Your task to perform on an android device: read, delete, or share a saved page in the chrome app Image 0: 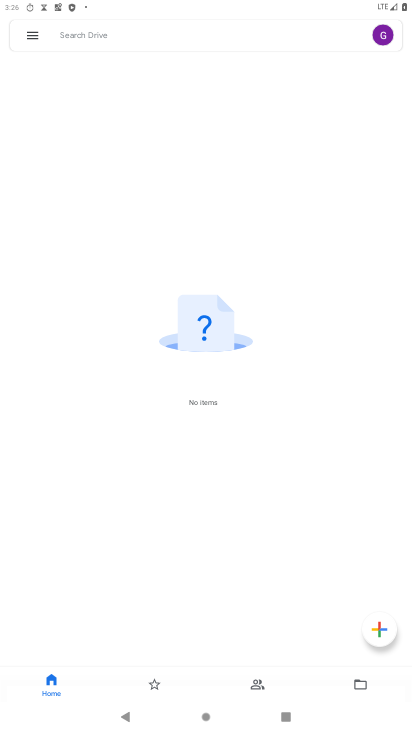
Step 0: press home button
Your task to perform on an android device: read, delete, or share a saved page in the chrome app Image 1: 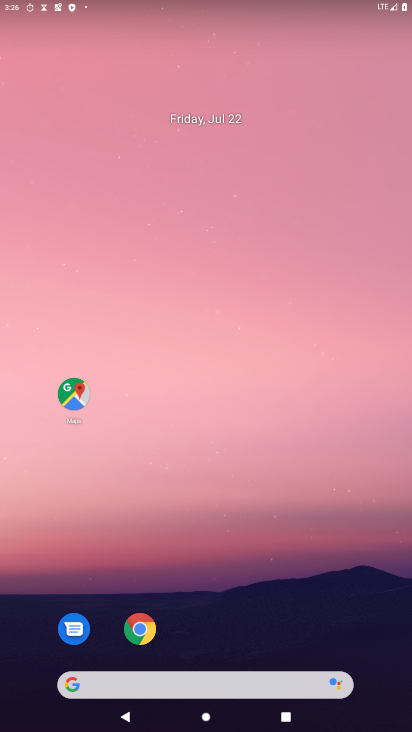
Step 1: drag from (203, 569) to (230, 3)
Your task to perform on an android device: read, delete, or share a saved page in the chrome app Image 2: 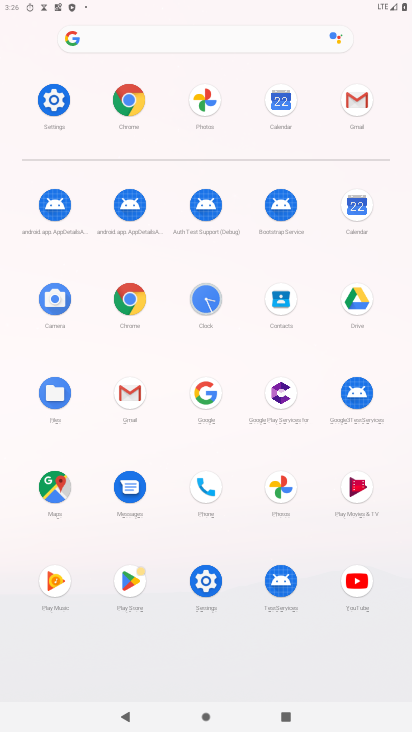
Step 2: click (139, 313)
Your task to perform on an android device: read, delete, or share a saved page in the chrome app Image 3: 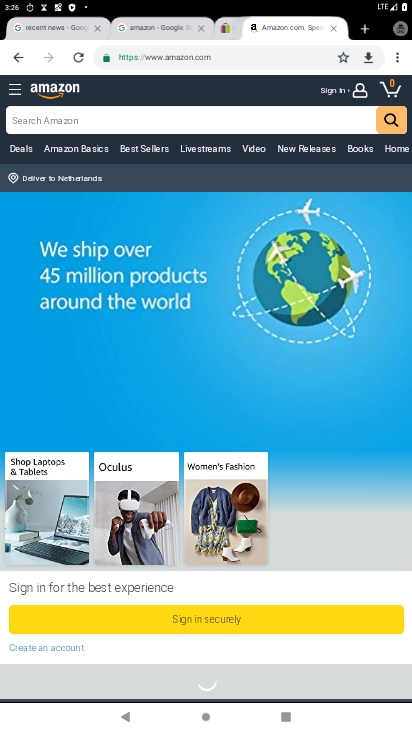
Step 3: click (402, 57)
Your task to perform on an android device: read, delete, or share a saved page in the chrome app Image 4: 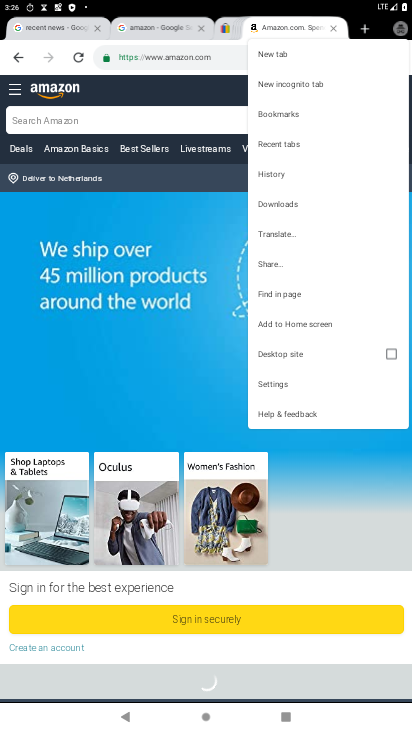
Step 4: click (292, 204)
Your task to perform on an android device: read, delete, or share a saved page in the chrome app Image 5: 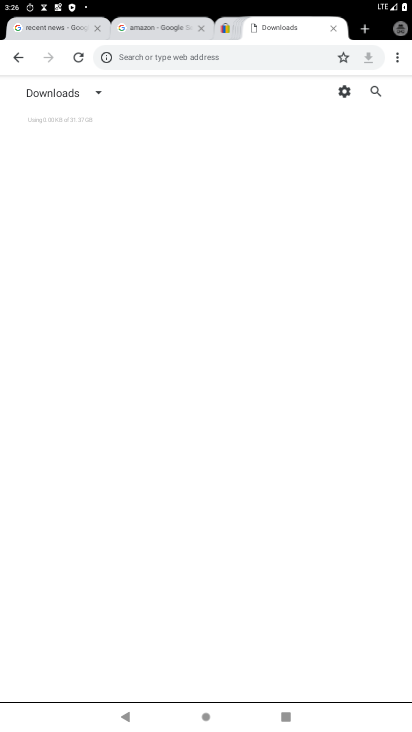
Step 5: task complete